Your task to perform on an android device: turn on translation in the chrome app Image 0: 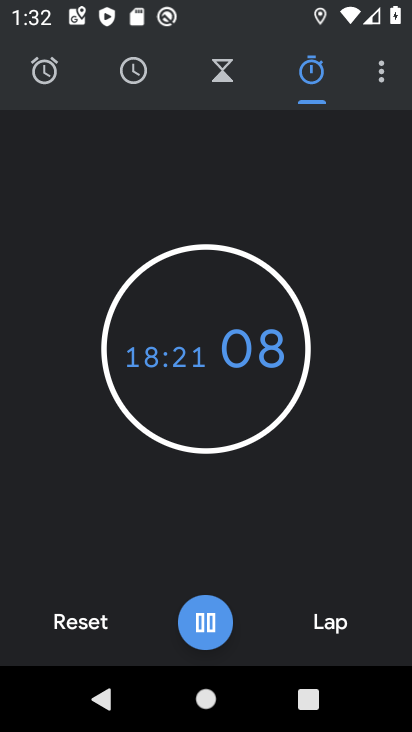
Step 0: press home button
Your task to perform on an android device: turn on translation in the chrome app Image 1: 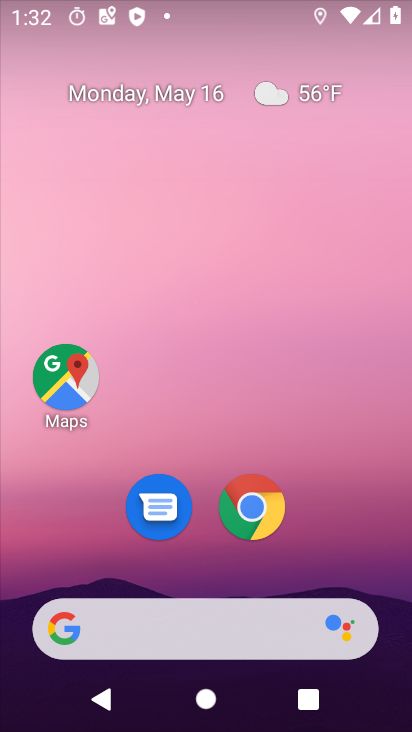
Step 1: click (254, 507)
Your task to perform on an android device: turn on translation in the chrome app Image 2: 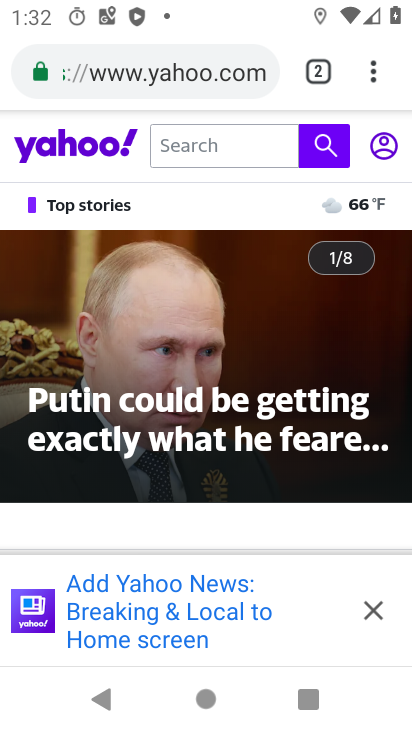
Step 2: click (366, 67)
Your task to perform on an android device: turn on translation in the chrome app Image 3: 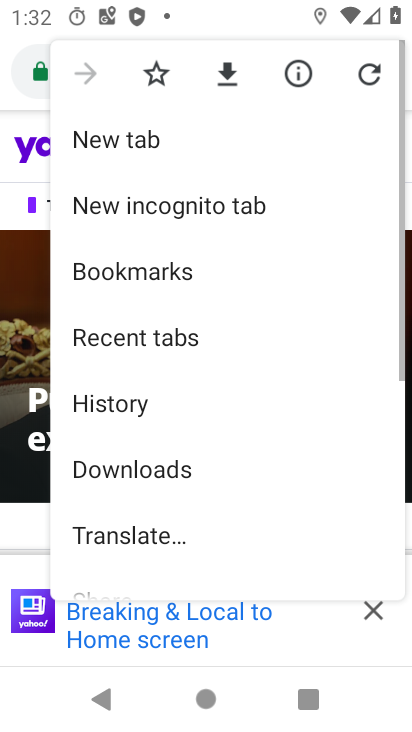
Step 3: drag from (170, 515) to (207, 146)
Your task to perform on an android device: turn on translation in the chrome app Image 4: 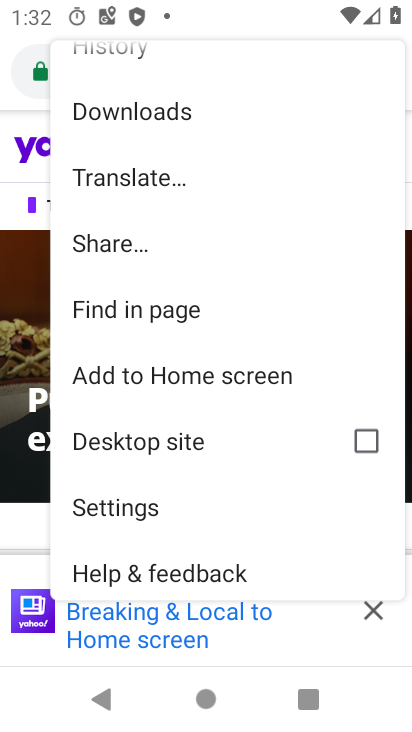
Step 4: click (145, 502)
Your task to perform on an android device: turn on translation in the chrome app Image 5: 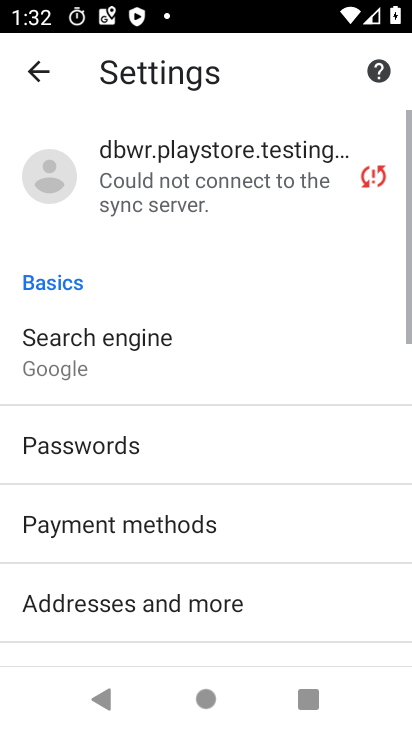
Step 5: drag from (206, 524) to (224, 35)
Your task to perform on an android device: turn on translation in the chrome app Image 6: 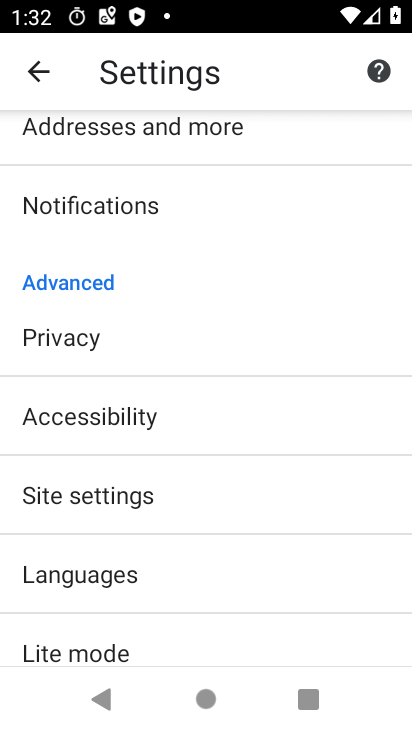
Step 6: click (107, 577)
Your task to perform on an android device: turn on translation in the chrome app Image 7: 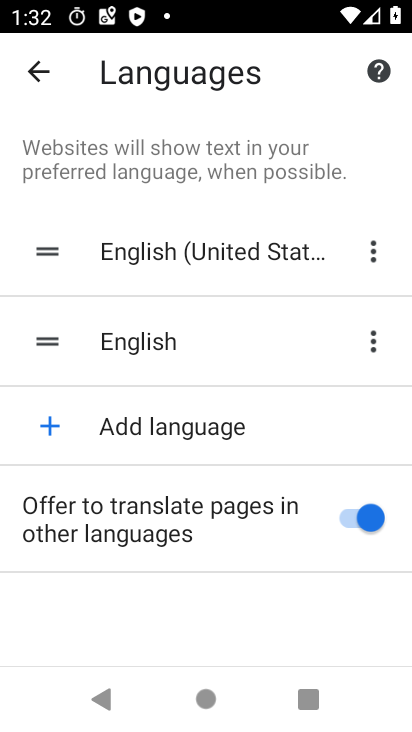
Step 7: task complete